Your task to perform on an android device: Search for a 4k TV on Best Buy Image 0: 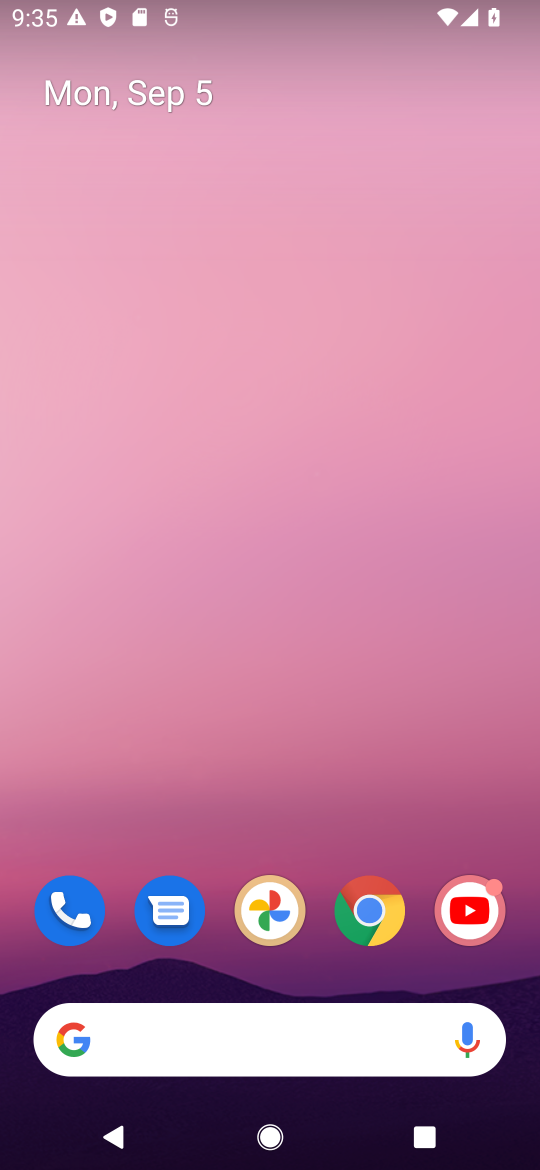
Step 0: click (382, 919)
Your task to perform on an android device: Search for a 4k TV on Best Buy Image 1: 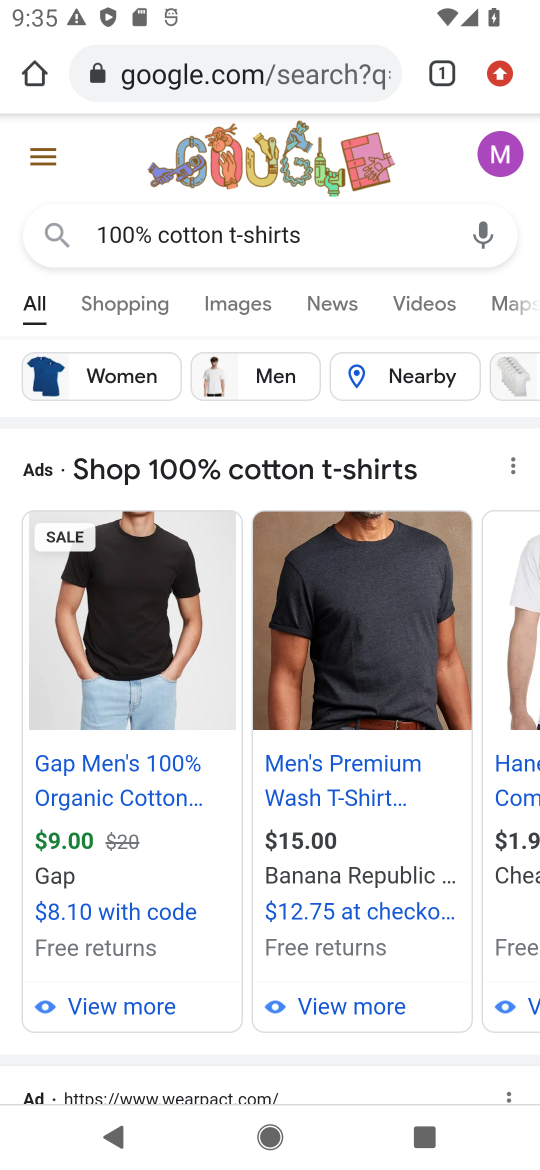
Step 1: click (339, 63)
Your task to perform on an android device: Search for a 4k TV on Best Buy Image 2: 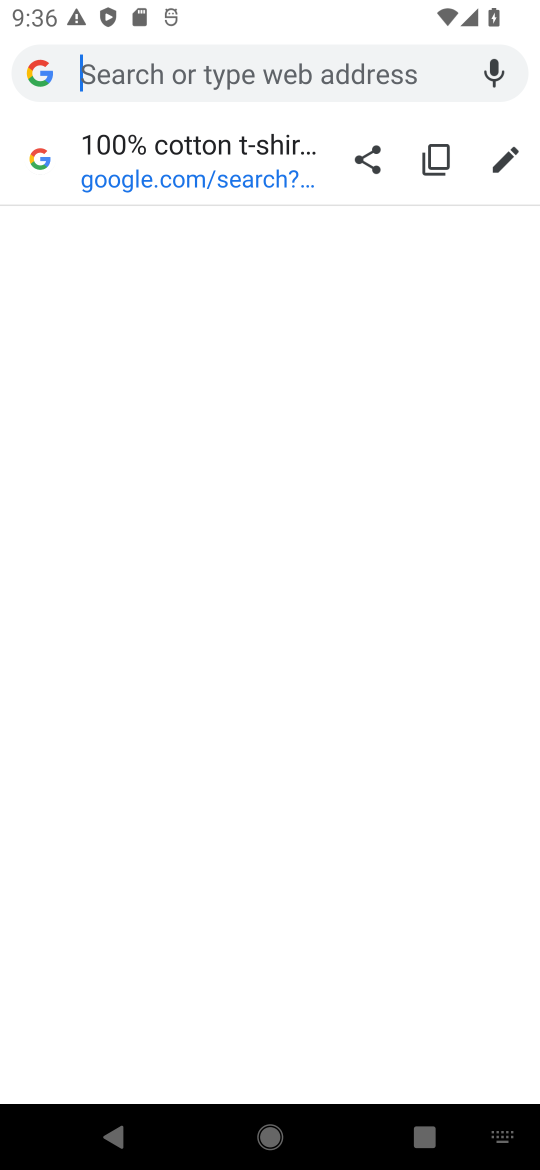
Step 2: type "best buy"
Your task to perform on an android device: Search for a 4k TV on Best Buy Image 3: 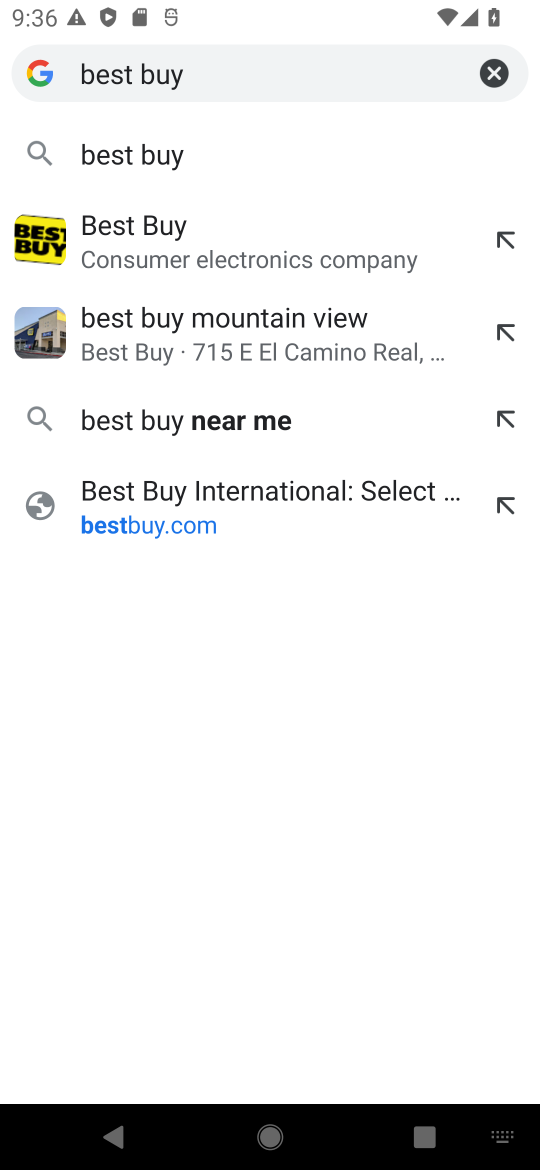
Step 3: click (247, 493)
Your task to perform on an android device: Search for a 4k TV on Best Buy Image 4: 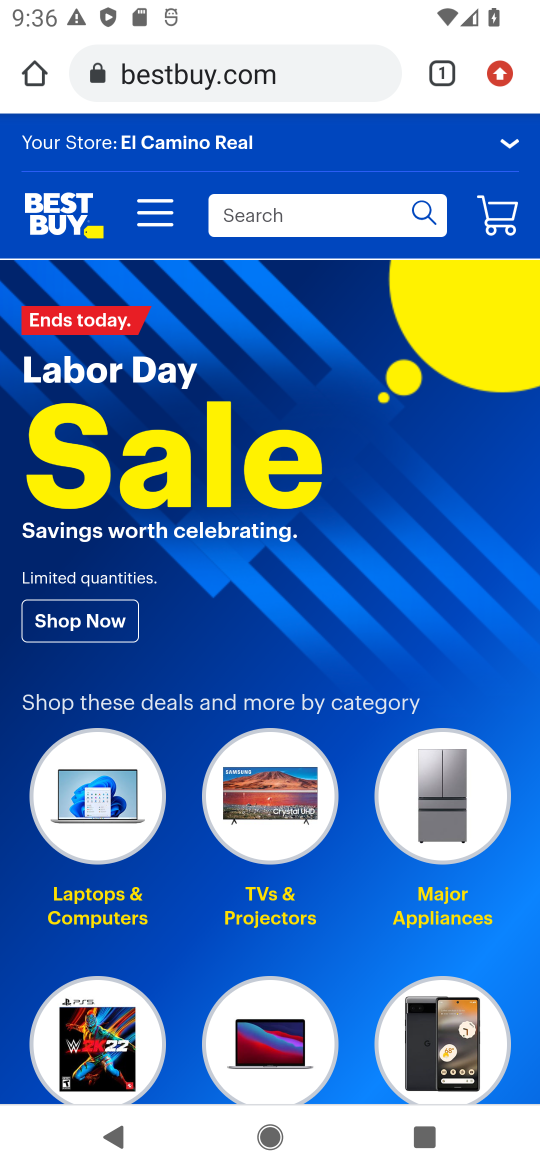
Step 4: click (352, 224)
Your task to perform on an android device: Search for a 4k TV on Best Buy Image 5: 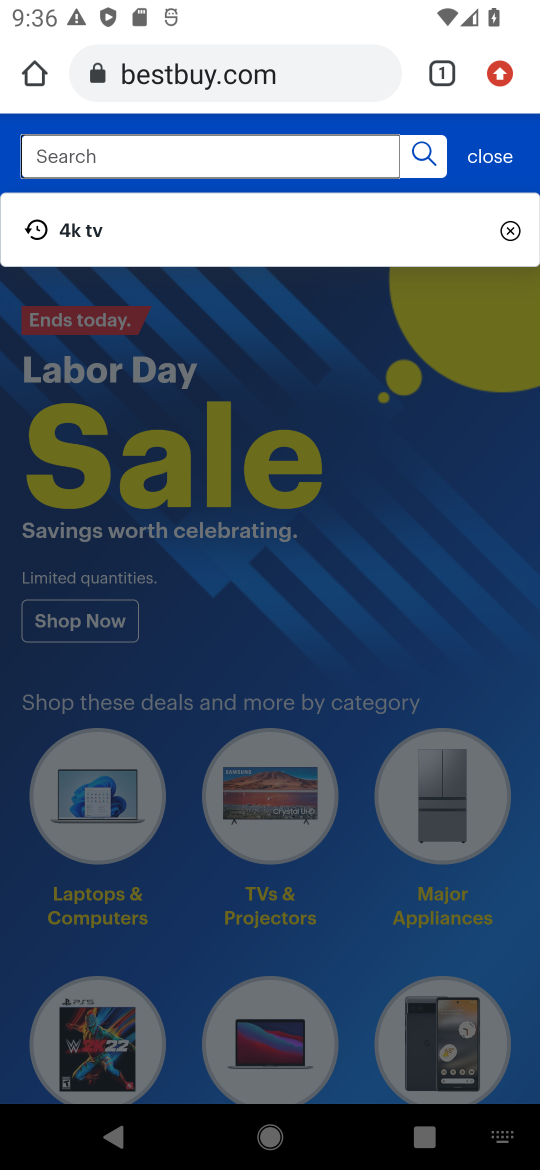
Step 5: click (200, 206)
Your task to perform on an android device: Search for a 4k TV on Best Buy Image 6: 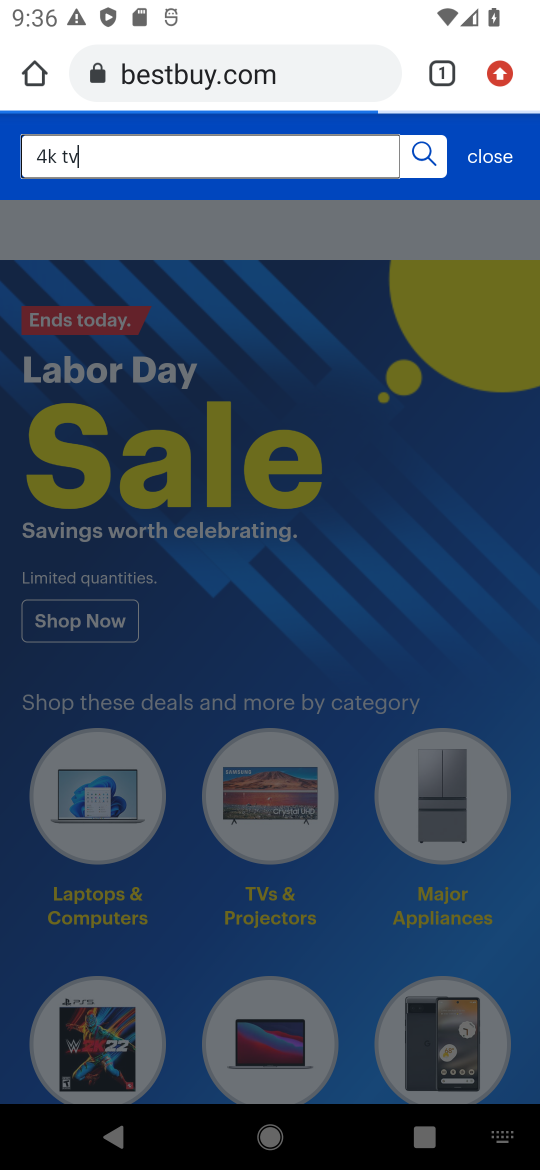
Step 6: task complete